Your task to perform on an android device: Turn off the flashlight Image 0: 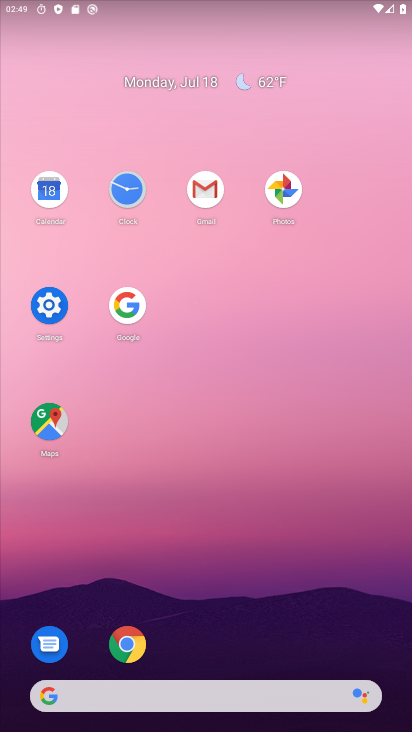
Step 0: drag from (222, 2) to (226, 542)
Your task to perform on an android device: Turn off the flashlight Image 1: 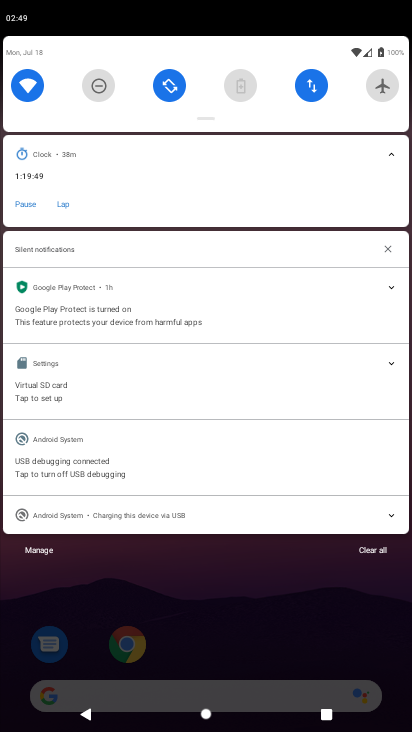
Step 1: task complete